Your task to perform on an android device: change notifications settings Image 0: 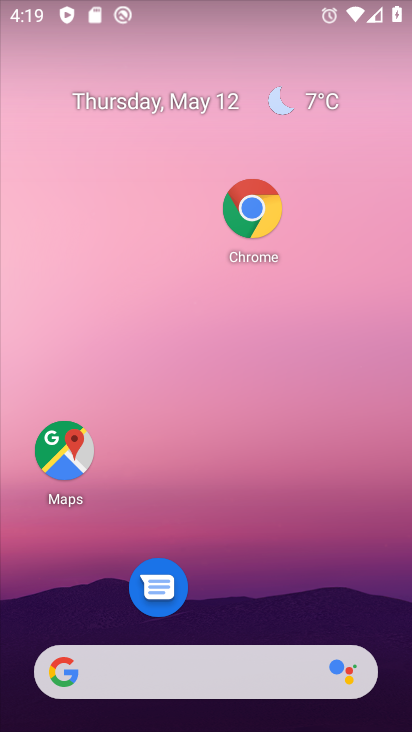
Step 0: drag from (244, 632) to (247, 132)
Your task to perform on an android device: change notifications settings Image 1: 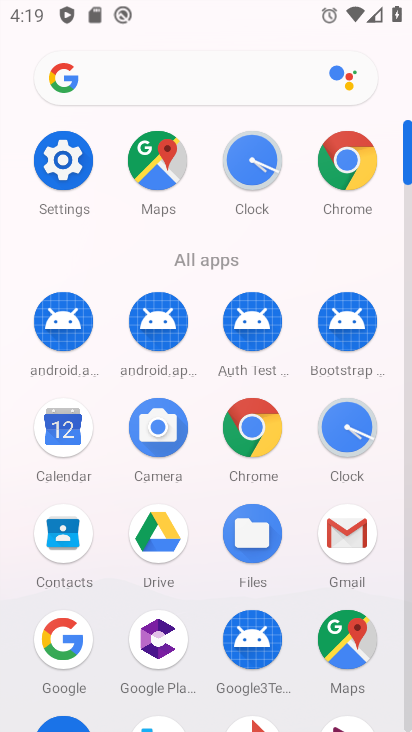
Step 1: click (63, 163)
Your task to perform on an android device: change notifications settings Image 2: 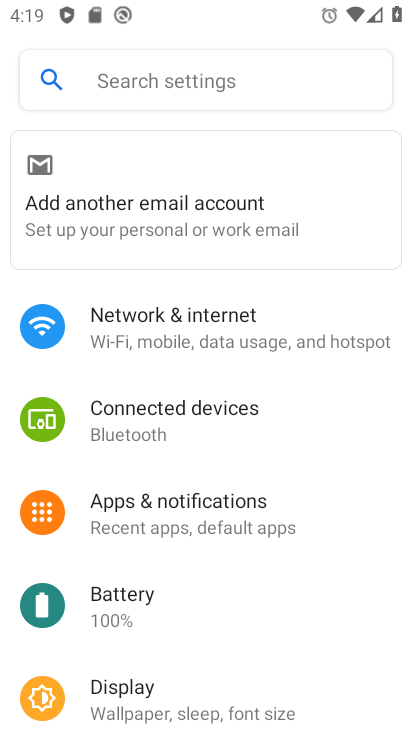
Step 2: click (155, 525)
Your task to perform on an android device: change notifications settings Image 3: 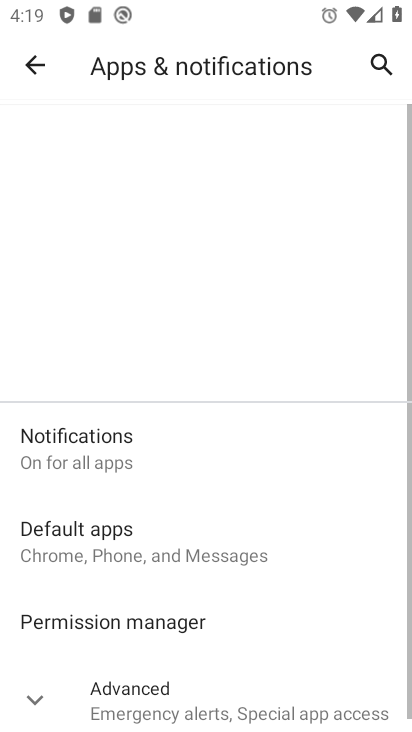
Step 3: click (155, 525)
Your task to perform on an android device: change notifications settings Image 4: 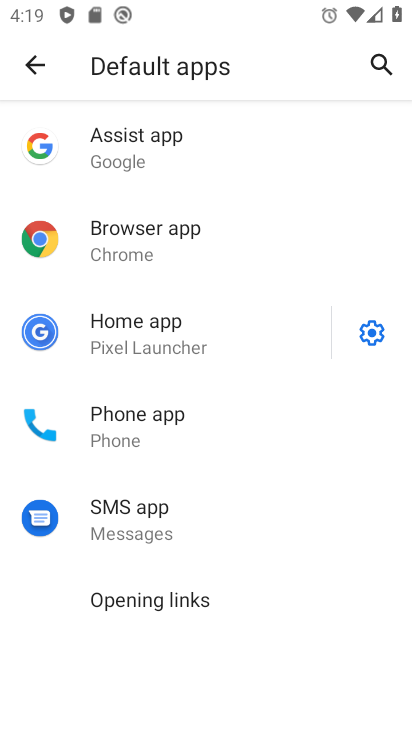
Step 4: click (98, 463)
Your task to perform on an android device: change notifications settings Image 5: 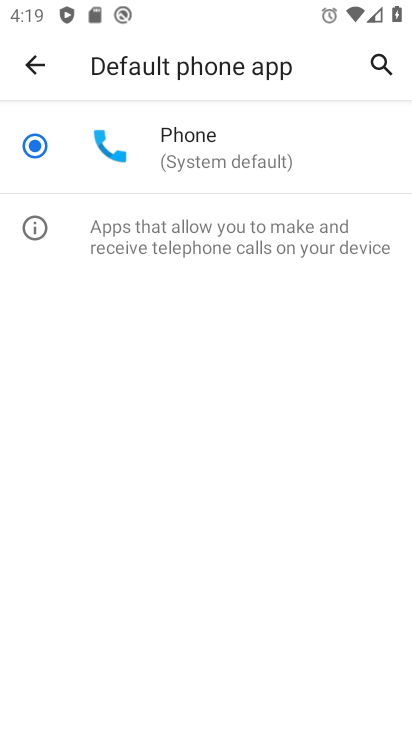
Step 5: click (30, 67)
Your task to perform on an android device: change notifications settings Image 6: 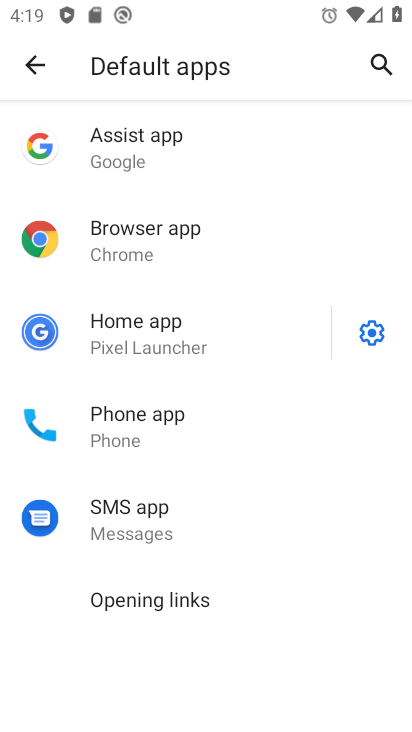
Step 6: click (31, 67)
Your task to perform on an android device: change notifications settings Image 7: 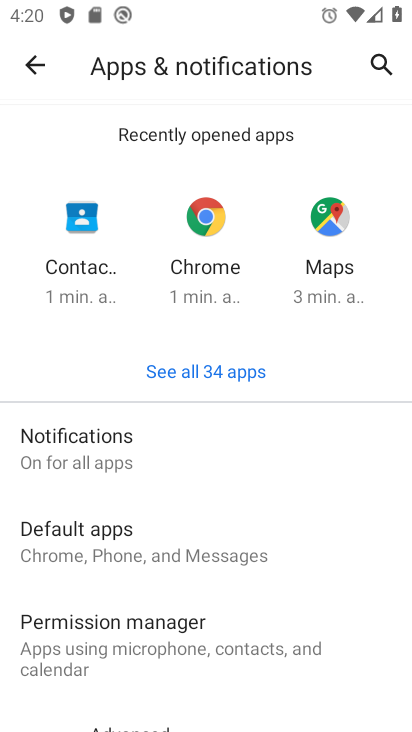
Step 7: click (70, 458)
Your task to perform on an android device: change notifications settings Image 8: 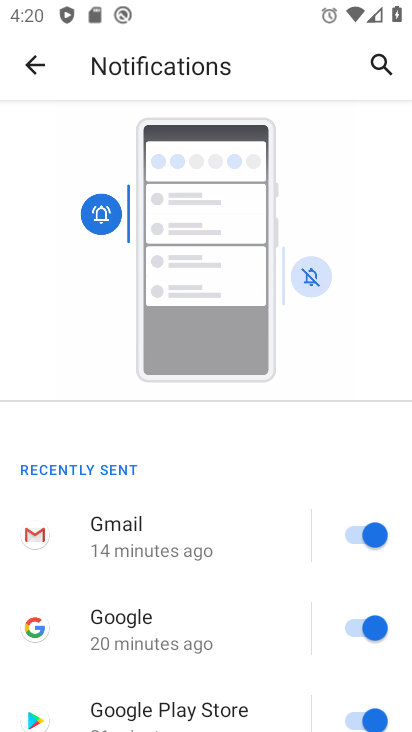
Step 8: drag from (205, 693) to (225, 342)
Your task to perform on an android device: change notifications settings Image 9: 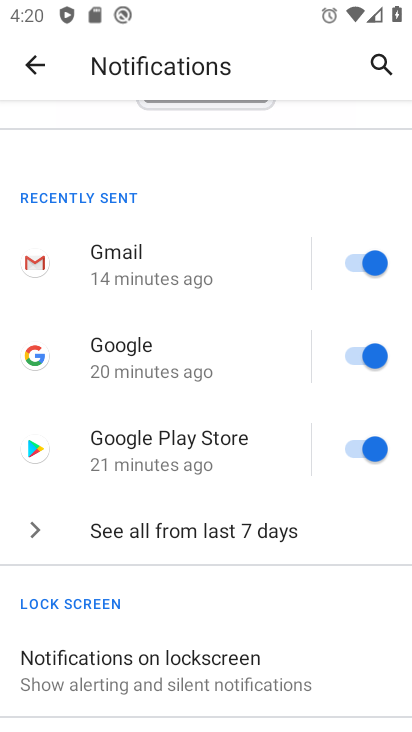
Step 9: drag from (162, 619) to (233, 307)
Your task to perform on an android device: change notifications settings Image 10: 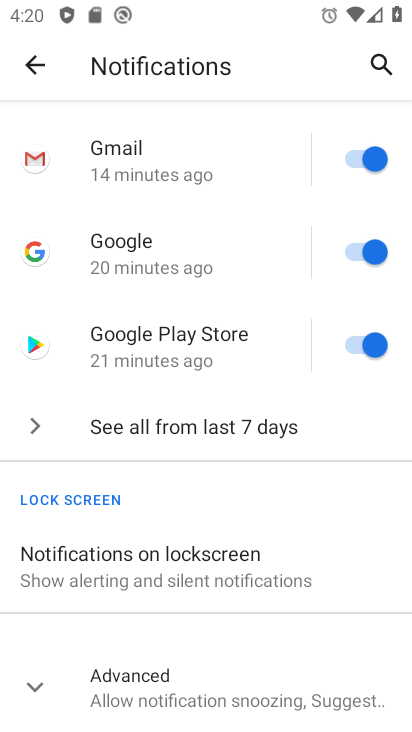
Step 10: click (168, 568)
Your task to perform on an android device: change notifications settings Image 11: 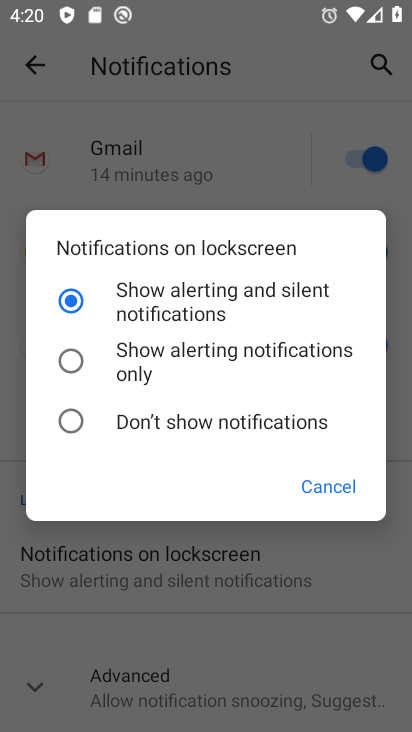
Step 11: click (76, 431)
Your task to perform on an android device: change notifications settings Image 12: 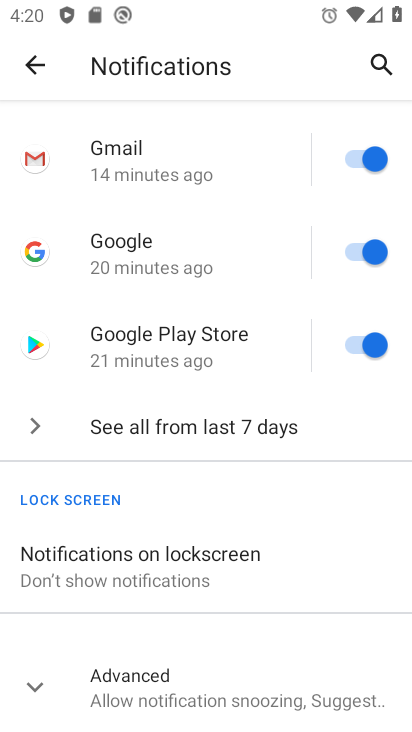
Step 12: task complete